Your task to perform on an android device: open app "Grab" Image 0: 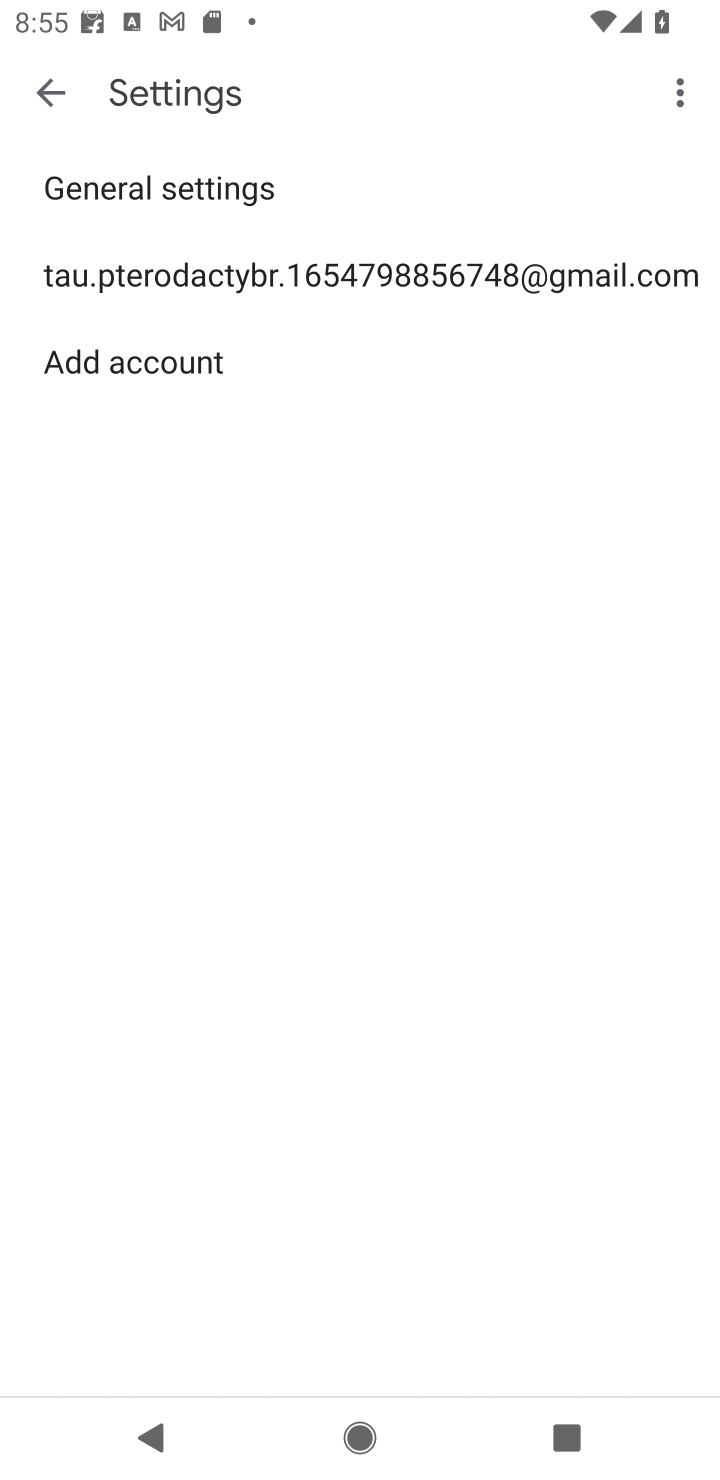
Step 0: press home button
Your task to perform on an android device: open app "Grab" Image 1: 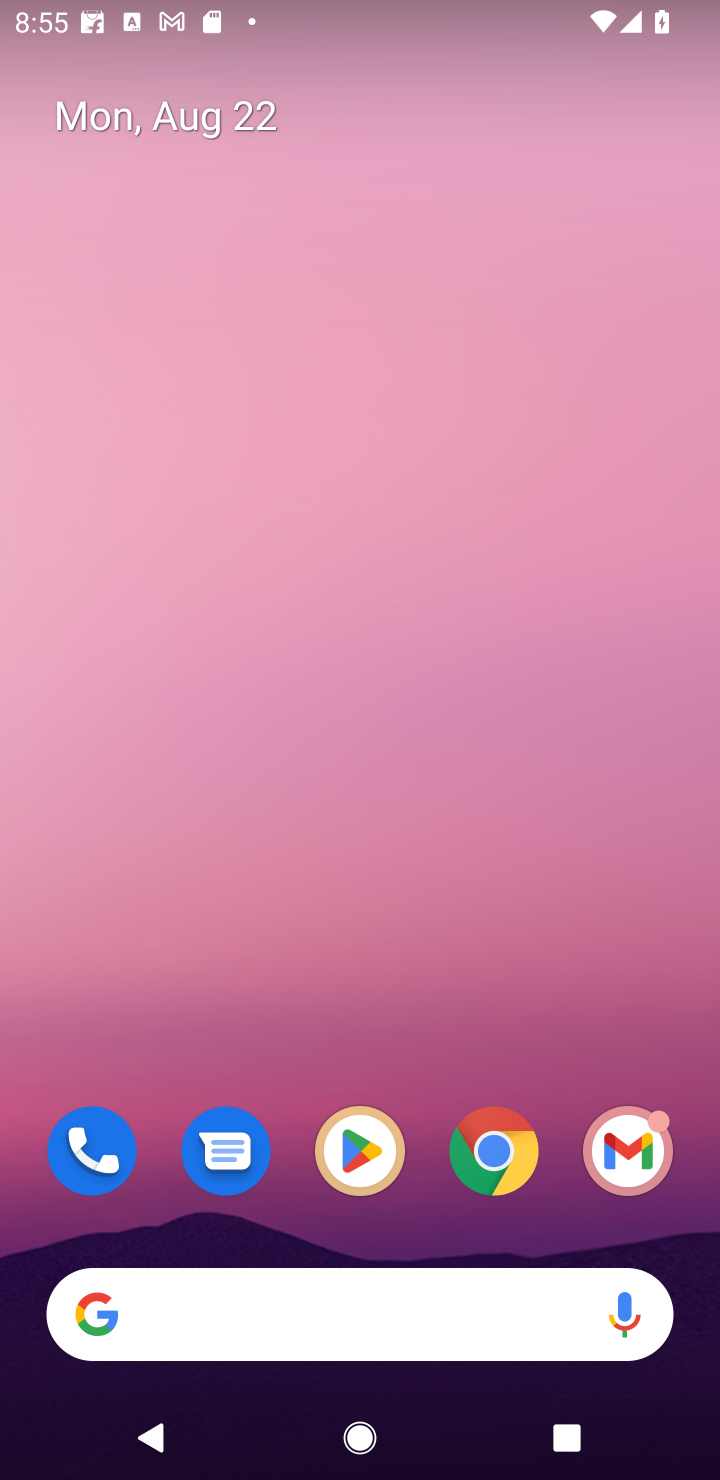
Step 1: click (362, 1166)
Your task to perform on an android device: open app "Grab" Image 2: 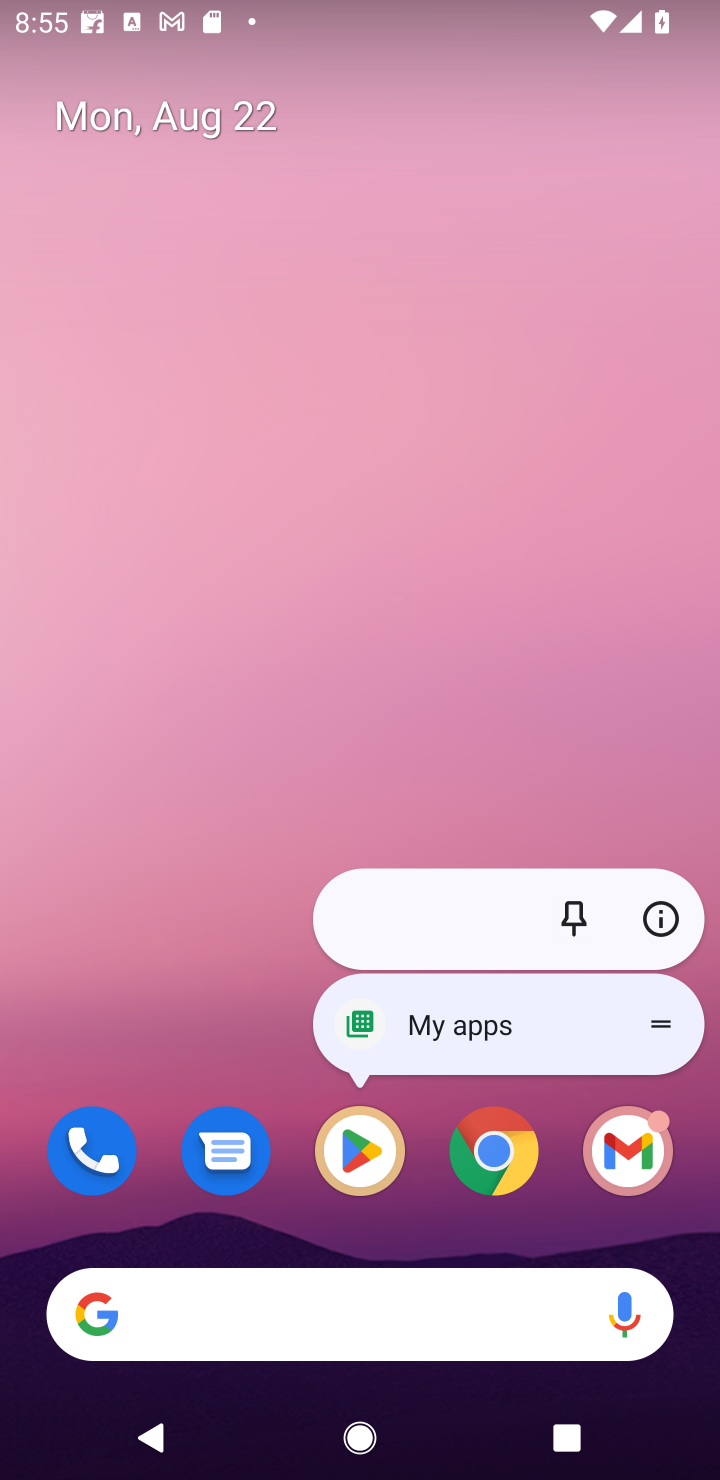
Step 2: click (356, 1151)
Your task to perform on an android device: open app "Grab" Image 3: 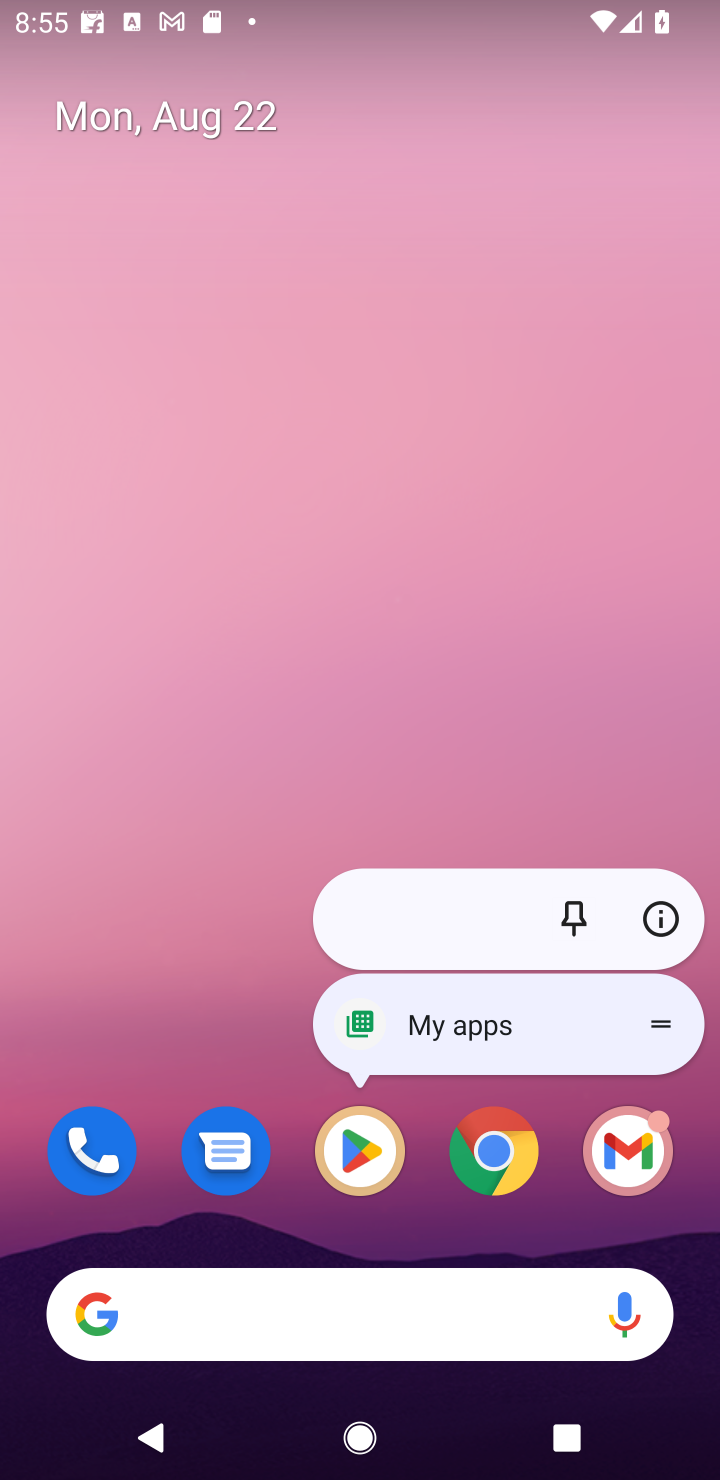
Step 3: click (356, 1158)
Your task to perform on an android device: open app "Grab" Image 4: 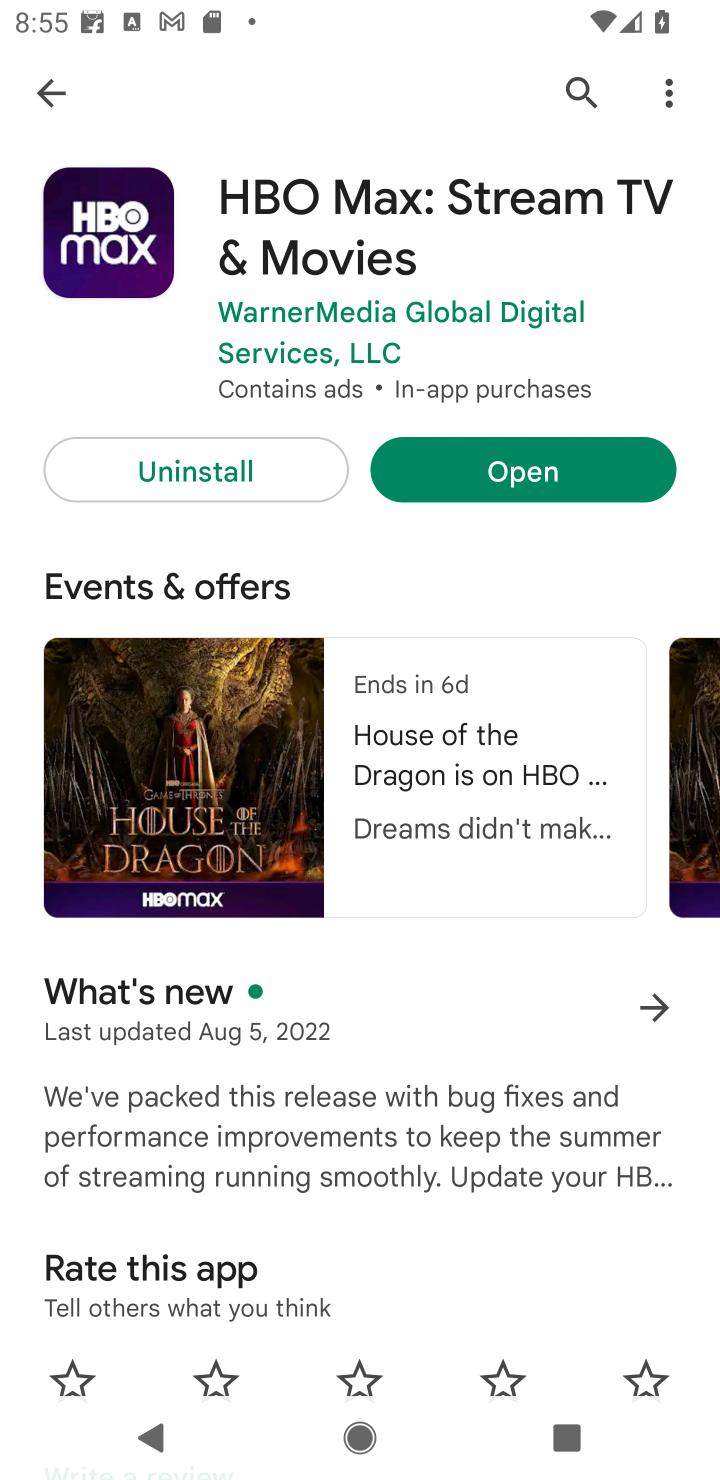
Step 4: click (576, 78)
Your task to perform on an android device: open app "Grab" Image 5: 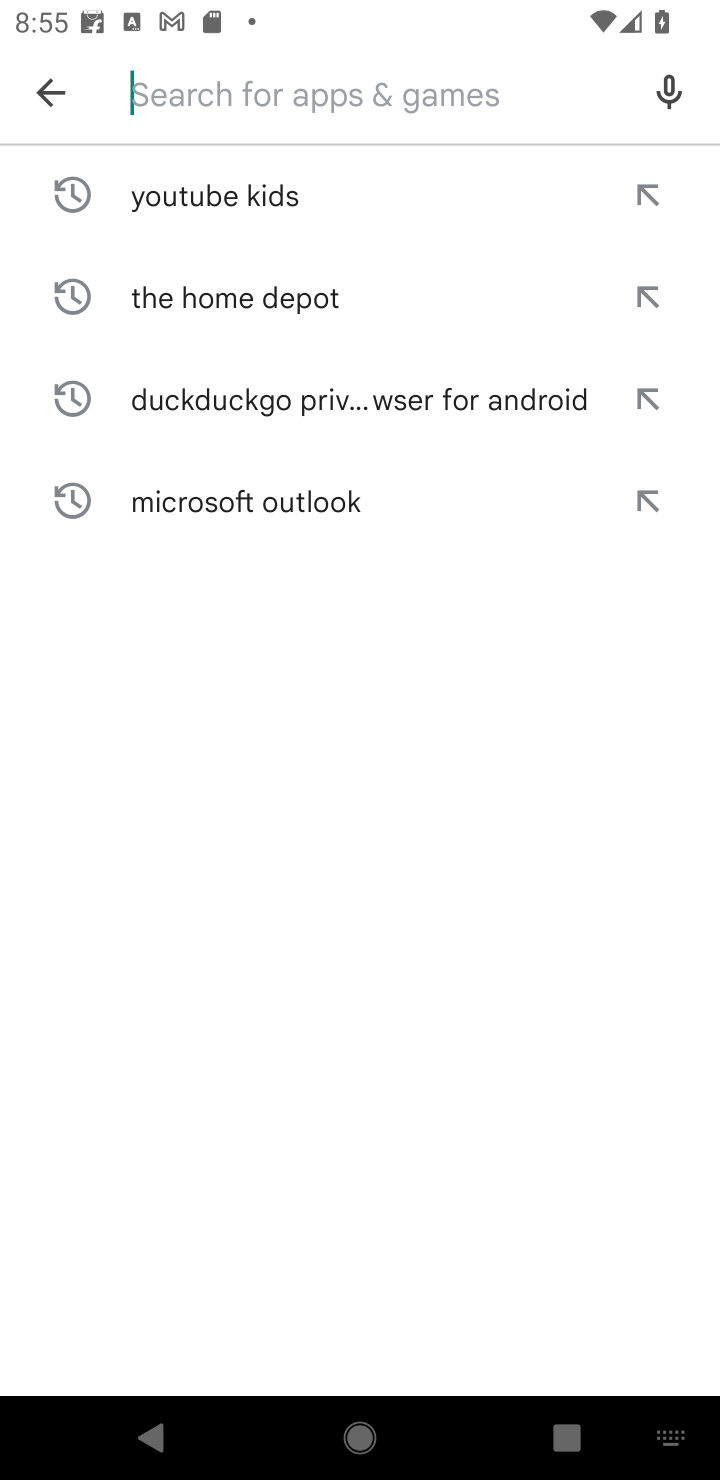
Step 5: type "Grab"
Your task to perform on an android device: open app "Grab" Image 6: 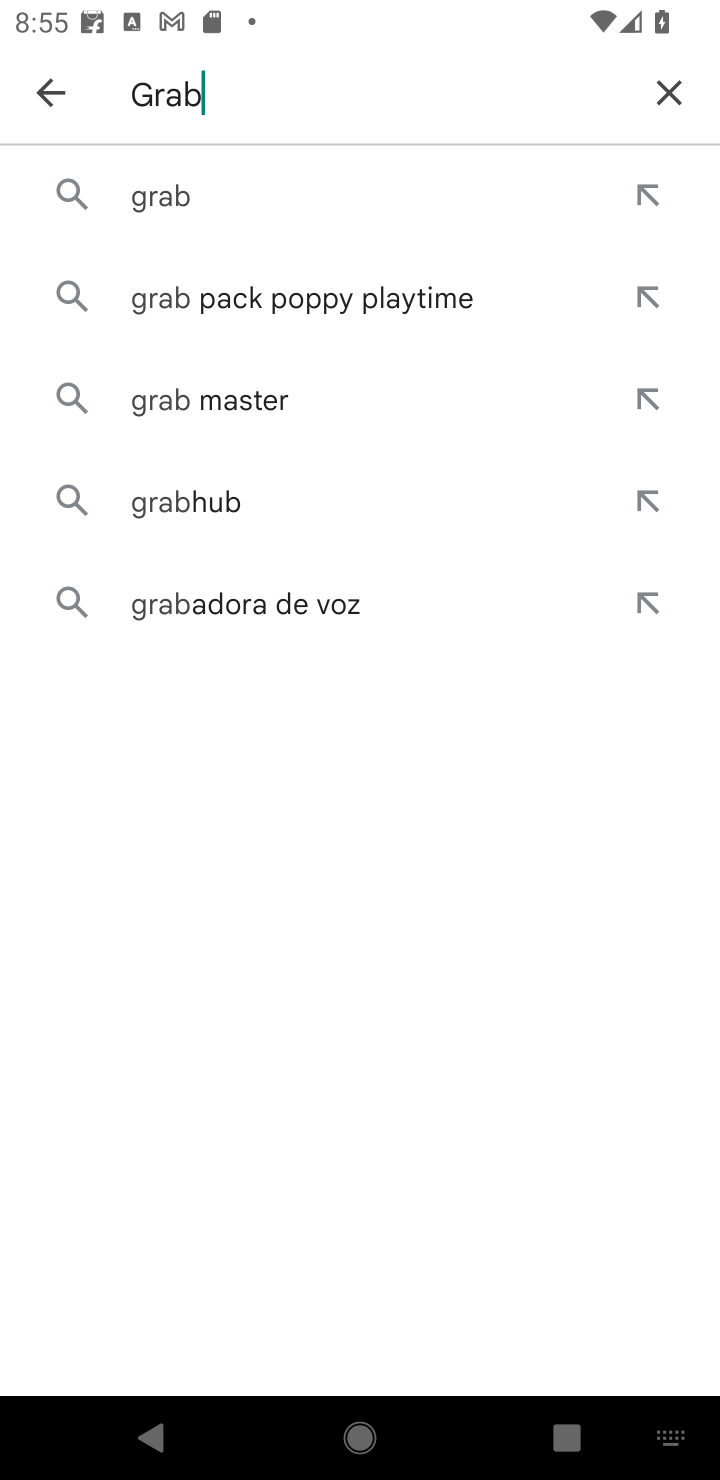
Step 6: click (140, 199)
Your task to perform on an android device: open app "Grab" Image 7: 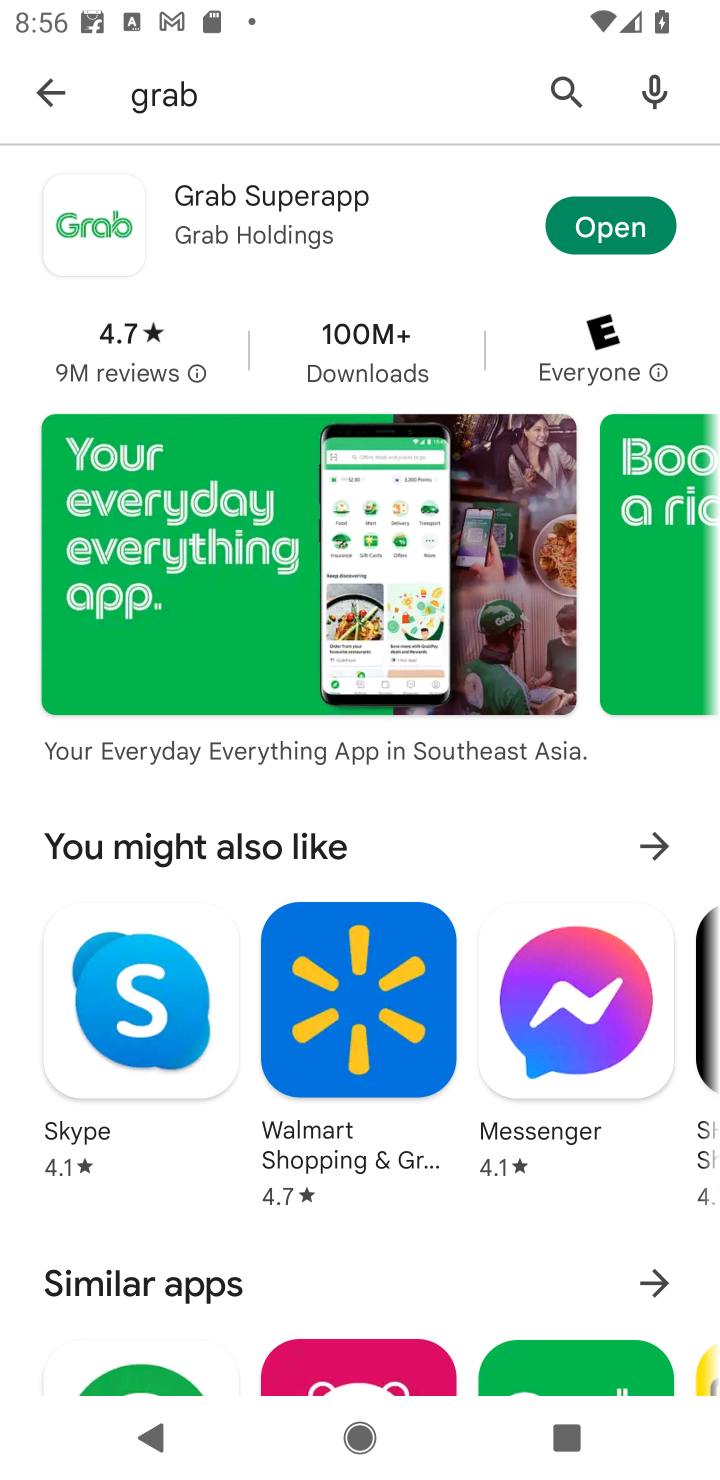
Step 7: click (622, 226)
Your task to perform on an android device: open app "Grab" Image 8: 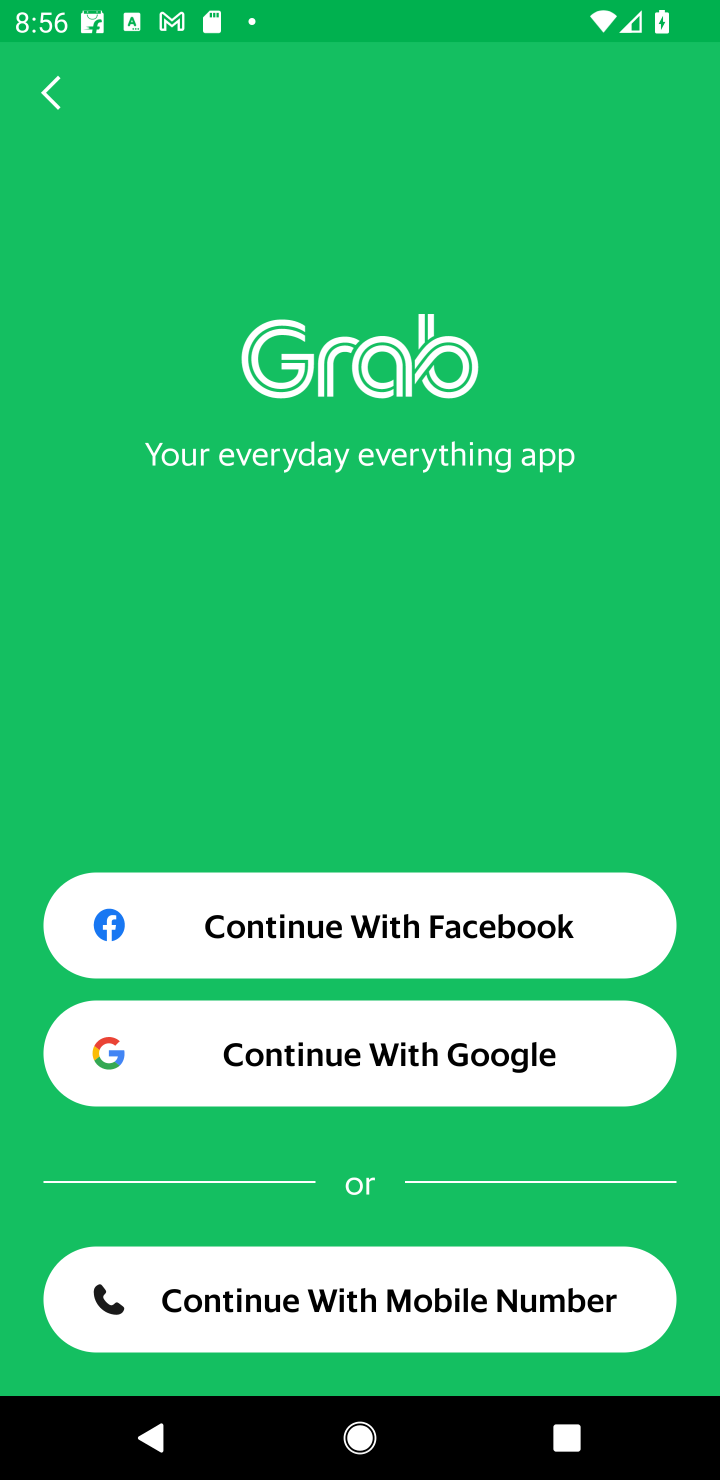
Step 8: task complete